Your task to perform on an android device: Open Google Chrome Image 0: 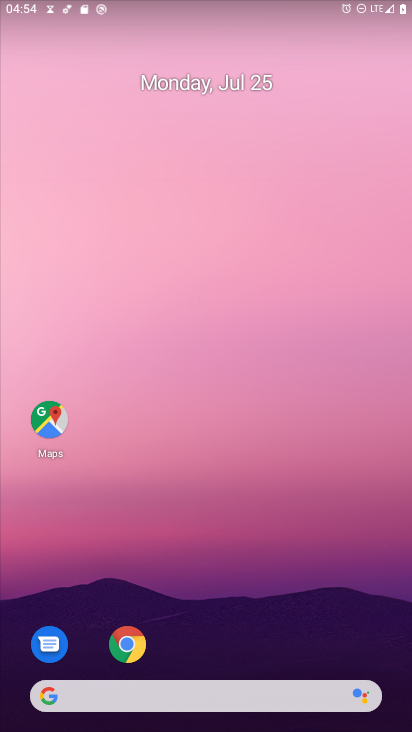
Step 0: press home button
Your task to perform on an android device: Open Google Chrome Image 1: 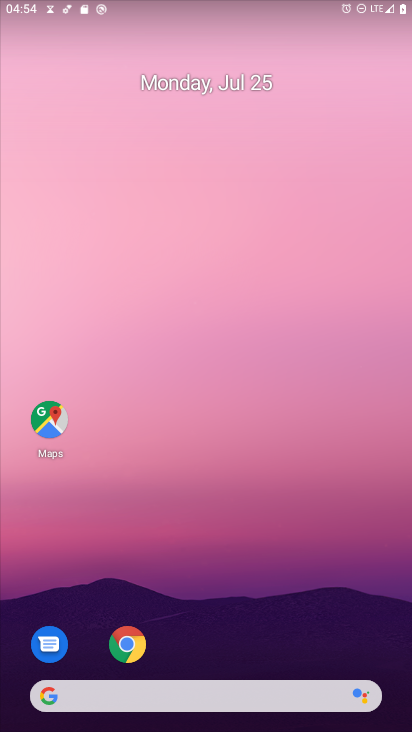
Step 1: click (132, 644)
Your task to perform on an android device: Open Google Chrome Image 2: 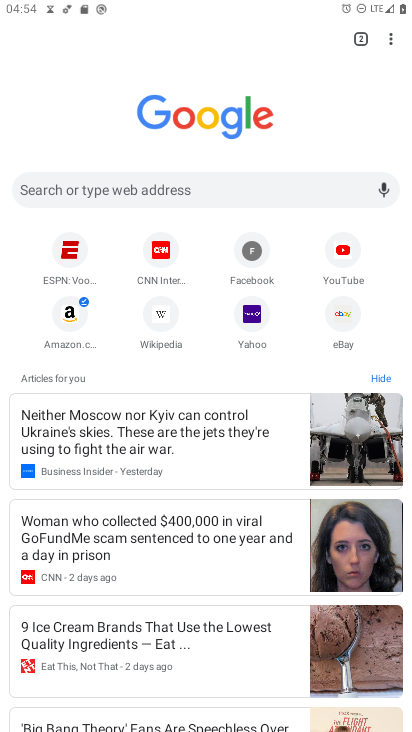
Step 2: task complete